Your task to perform on an android device: turn notification dots off Image 0: 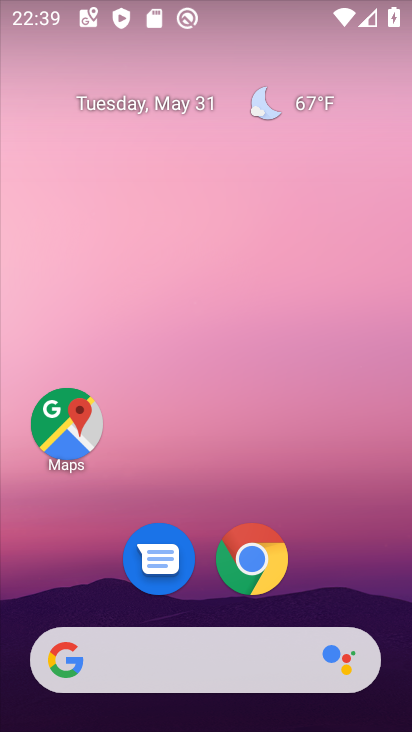
Step 0: drag from (339, 577) to (294, 141)
Your task to perform on an android device: turn notification dots off Image 1: 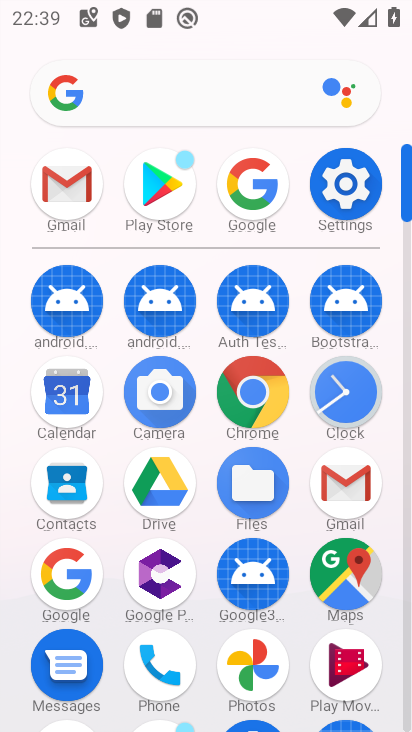
Step 1: click (343, 182)
Your task to perform on an android device: turn notification dots off Image 2: 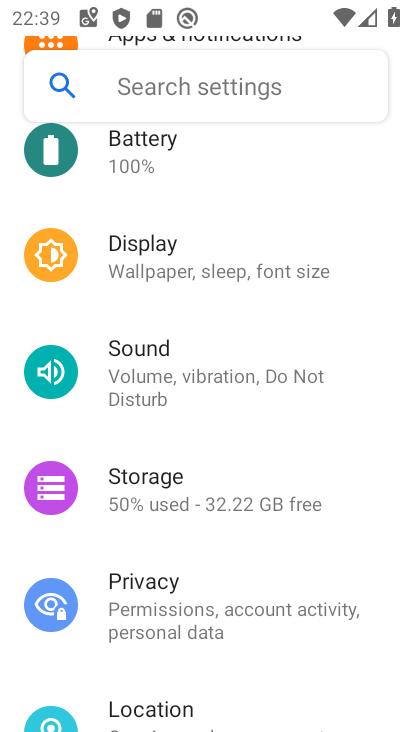
Step 2: drag from (162, 179) to (194, 577)
Your task to perform on an android device: turn notification dots off Image 3: 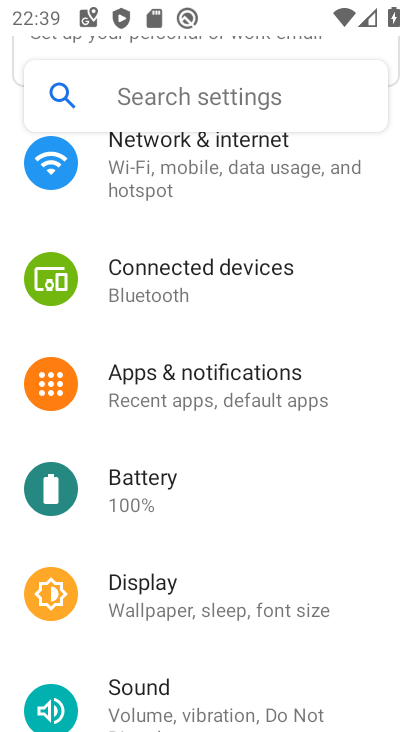
Step 3: click (159, 378)
Your task to perform on an android device: turn notification dots off Image 4: 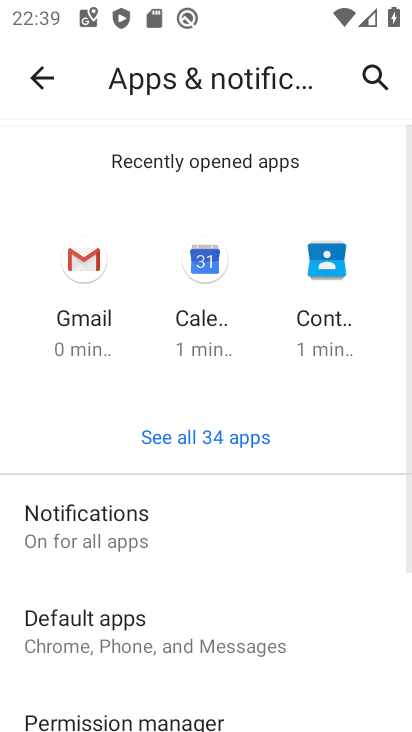
Step 4: click (143, 529)
Your task to perform on an android device: turn notification dots off Image 5: 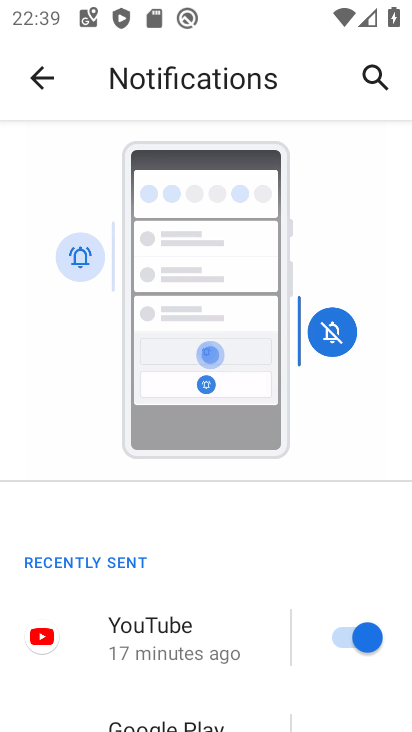
Step 5: drag from (303, 639) to (302, 50)
Your task to perform on an android device: turn notification dots off Image 6: 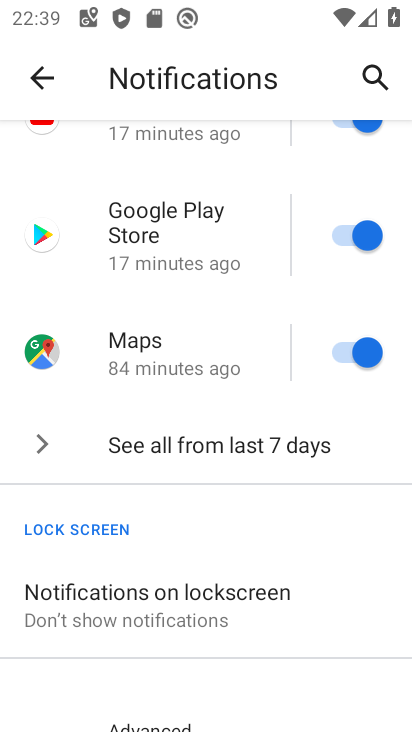
Step 6: drag from (255, 675) to (251, 297)
Your task to perform on an android device: turn notification dots off Image 7: 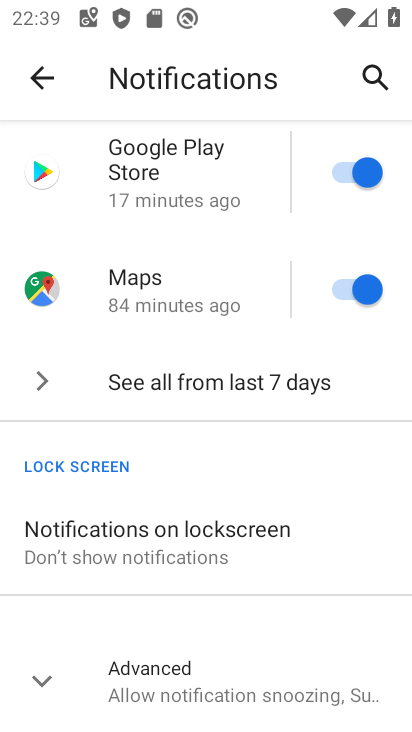
Step 7: click (177, 692)
Your task to perform on an android device: turn notification dots off Image 8: 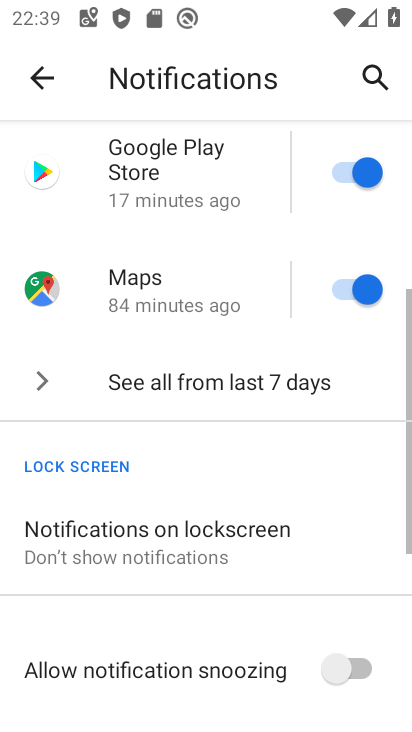
Step 8: drag from (287, 619) to (309, 96)
Your task to perform on an android device: turn notification dots off Image 9: 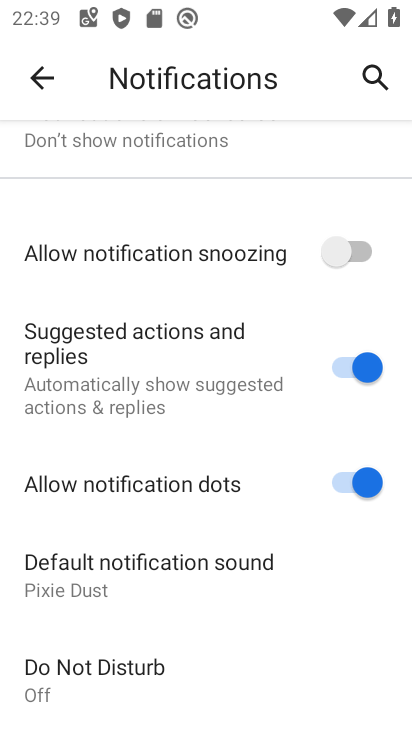
Step 9: click (360, 486)
Your task to perform on an android device: turn notification dots off Image 10: 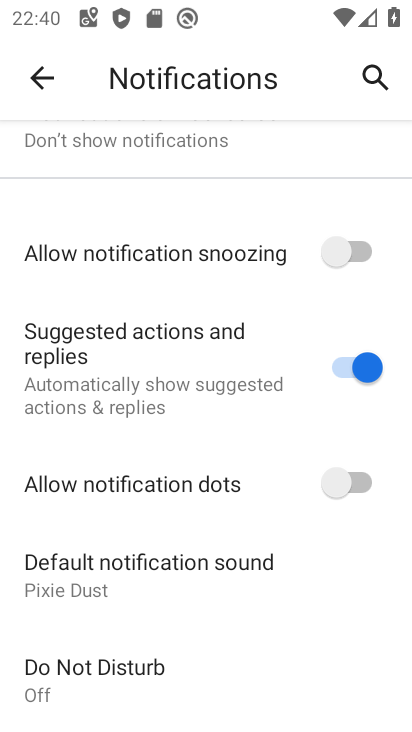
Step 10: task complete